Your task to perform on an android device: Open my contact list Image 0: 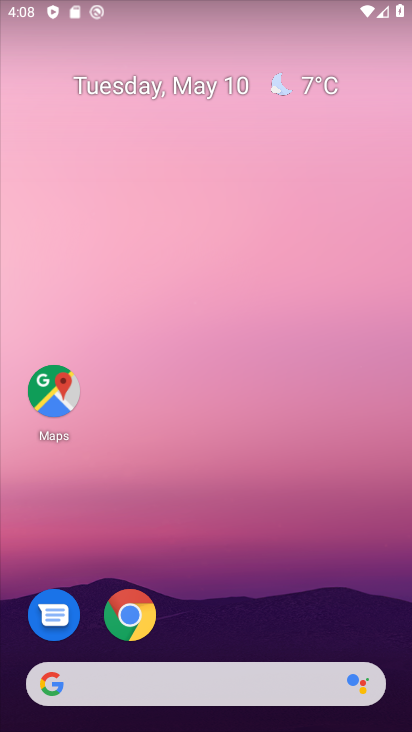
Step 0: drag from (239, 524) to (242, 33)
Your task to perform on an android device: Open my contact list Image 1: 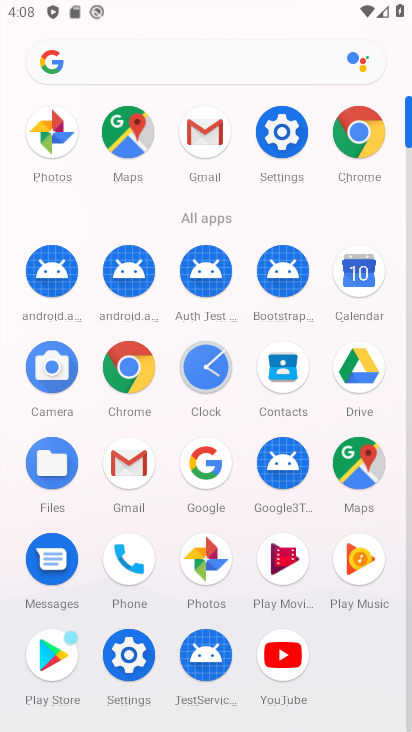
Step 1: drag from (14, 546) to (14, 228)
Your task to perform on an android device: Open my contact list Image 2: 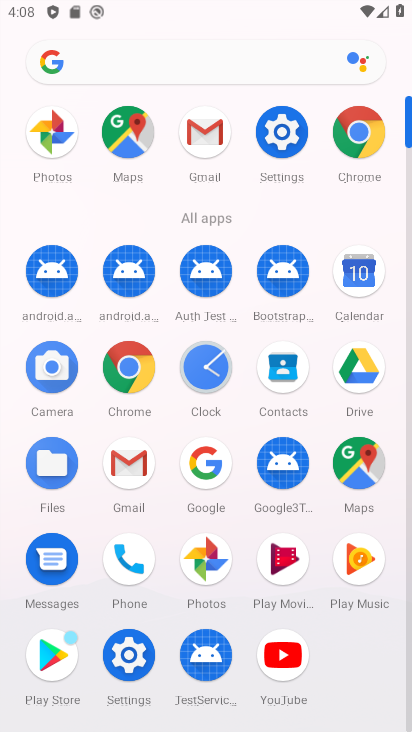
Step 2: click (286, 364)
Your task to perform on an android device: Open my contact list Image 3: 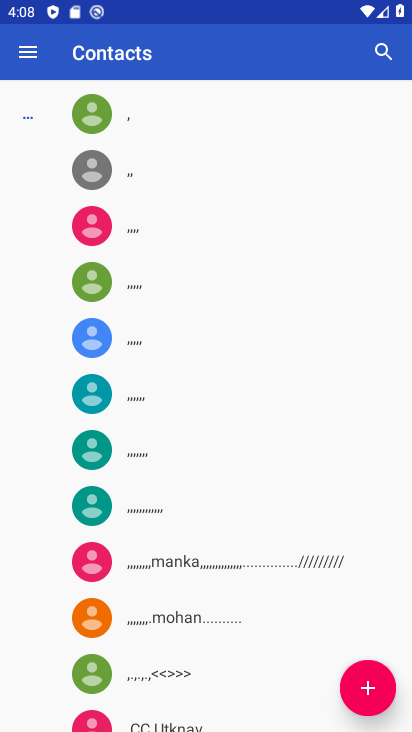
Step 3: click (7, 53)
Your task to perform on an android device: Open my contact list Image 4: 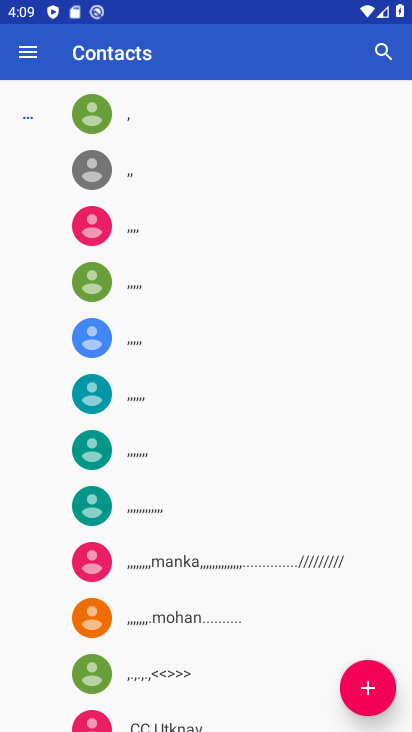
Step 4: click (16, 55)
Your task to perform on an android device: Open my contact list Image 5: 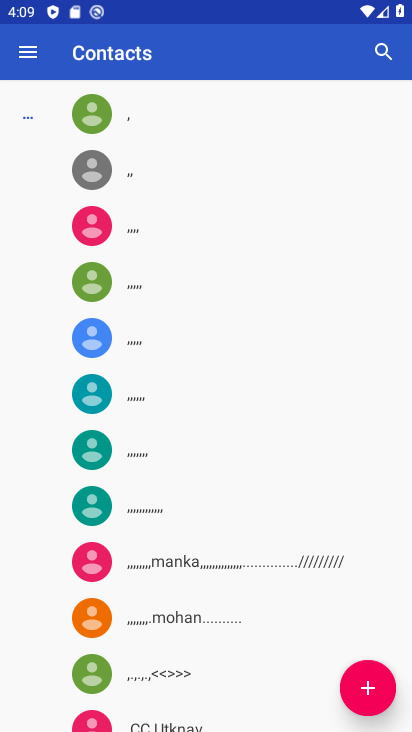
Step 5: task complete